Your task to perform on an android device: Go to sound settings Image 0: 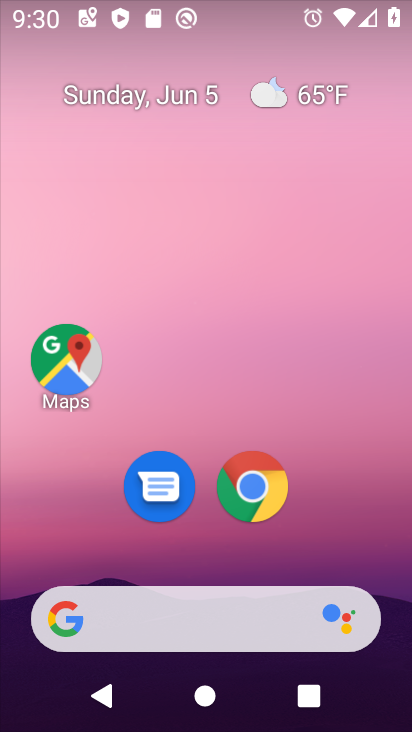
Step 0: drag from (364, 533) to (333, 104)
Your task to perform on an android device: Go to sound settings Image 1: 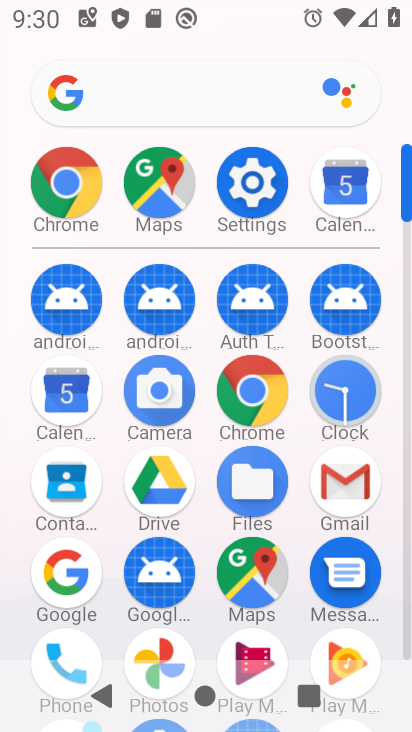
Step 1: click (243, 201)
Your task to perform on an android device: Go to sound settings Image 2: 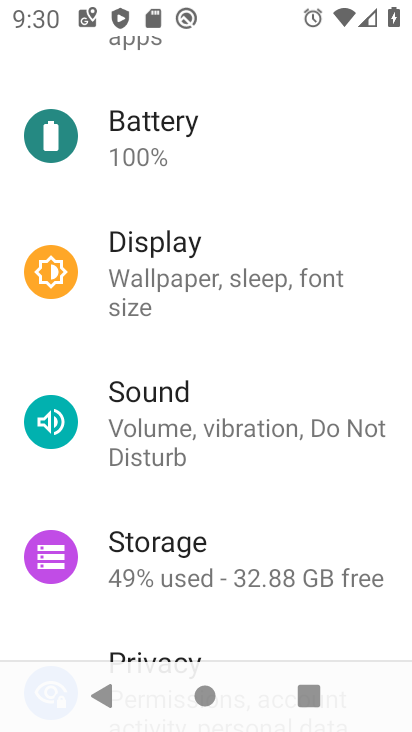
Step 2: click (222, 432)
Your task to perform on an android device: Go to sound settings Image 3: 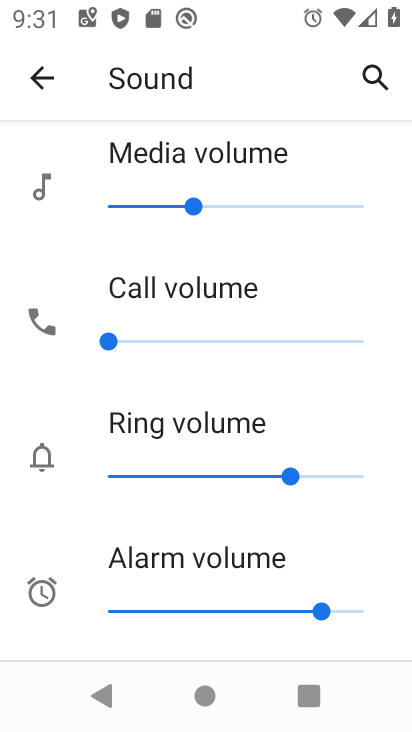
Step 3: task complete